Your task to perform on an android device: delete the emails in spam in the gmail app Image 0: 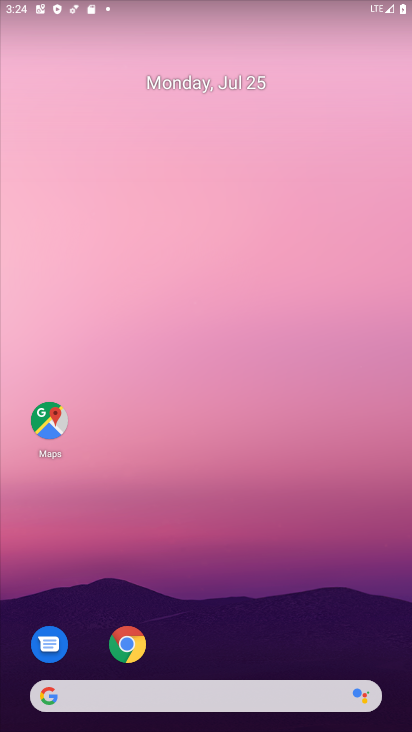
Step 0: drag from (299, 632) to (230, 127)
Your task to perform on an android device: delete the emails in spam in the gmail app Image 1: 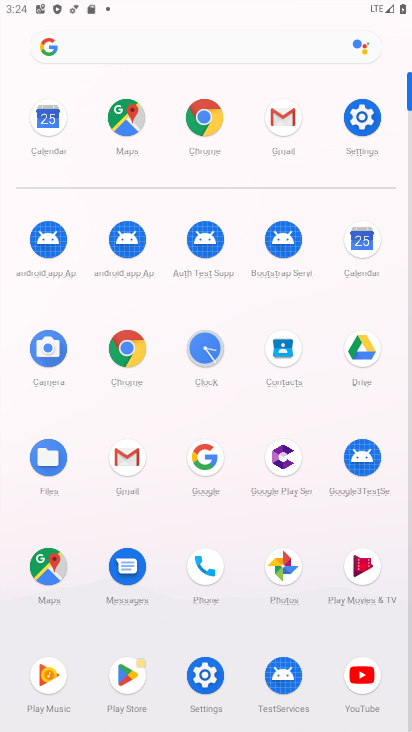
Step 1: click (294, 134)
Your task to perform on an android device: delete the emails in spam in the gmail app Image 2: 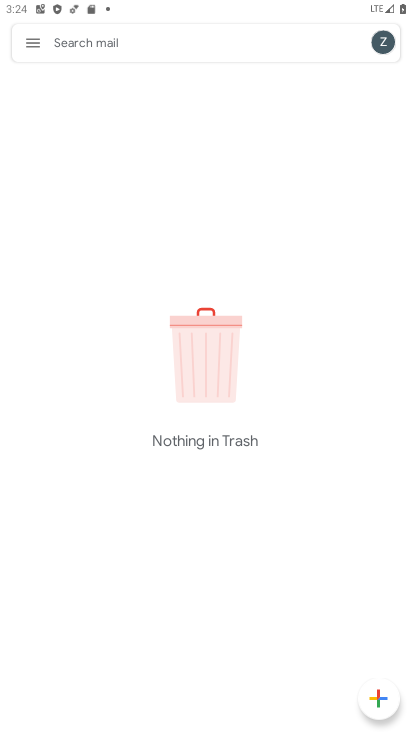
Step 2: click (41, 46)
Your task to perform on an android device: delete the emails in spam in the gmail app Image 3: 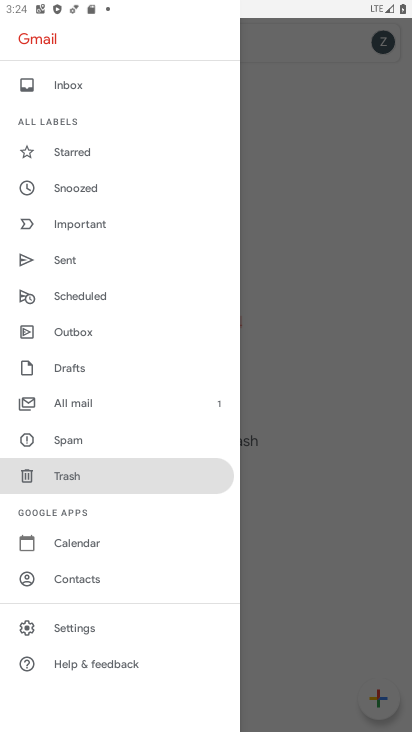
Step 3: click (189, 426)
Your task to perform on an android device: delete the emails in spam in the gmail app Image 4: 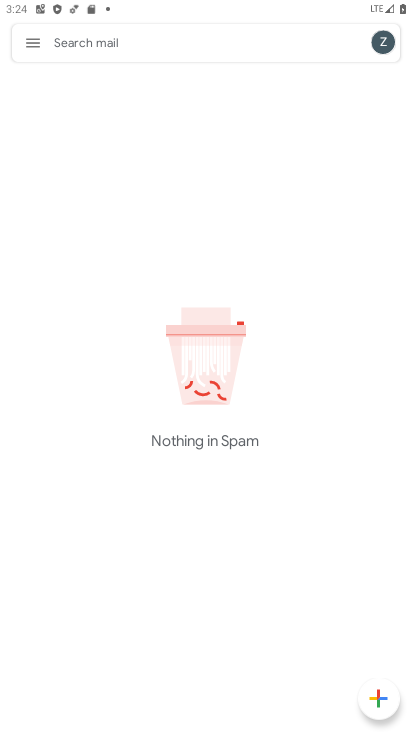
Step 4: task complete